Your task to perform on an android device: Open Maps and search for coffee Image 0: 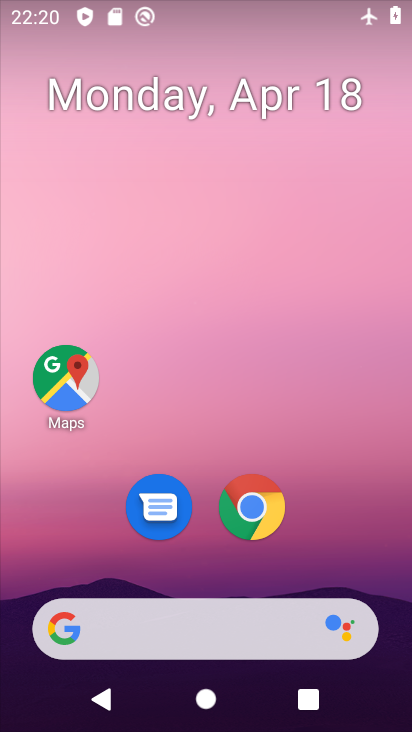
Step 0: click (57, 369)
Your task to perform on an android device: Open Maps and search for coffee Image 1: 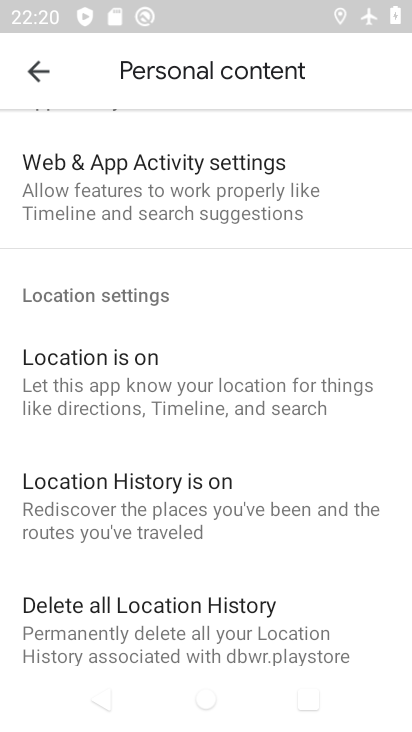
Step 1: click (42, 67)
Your task to perform on an android device: Open Maps and search for coffee Image 2: 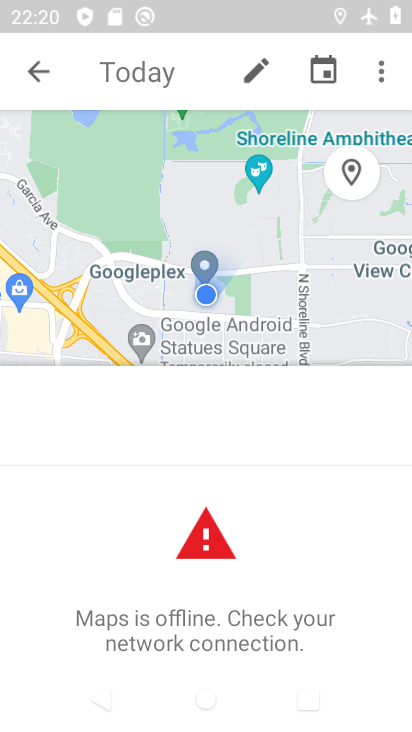
Step 2: click (42, 66)
Your task to perform on an android device: Open Maps and search for coffee Image 3: 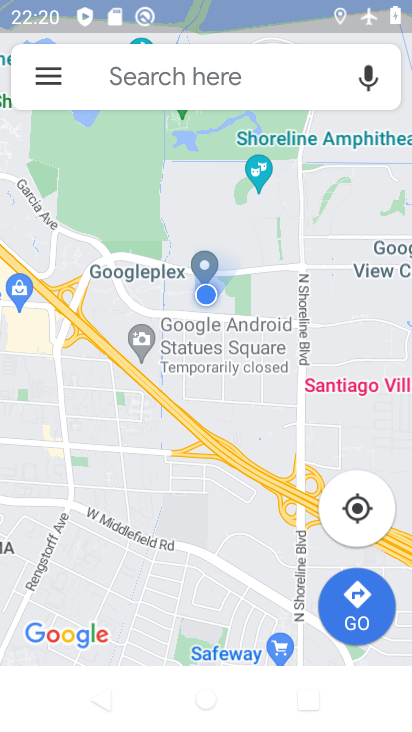
Step 3: click (143, 67)
Your task to perform on an android device: Open Maps and search for coffee Image 4: 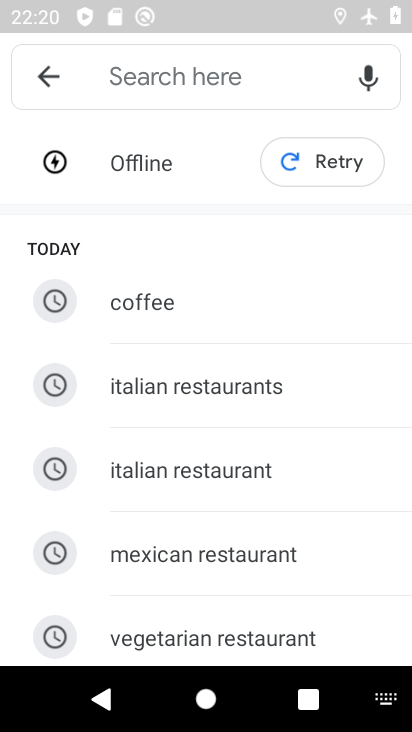
Step 4: click (187, 300)
Your task to perform on an android device: Open Maps and search for coffee Image 5: 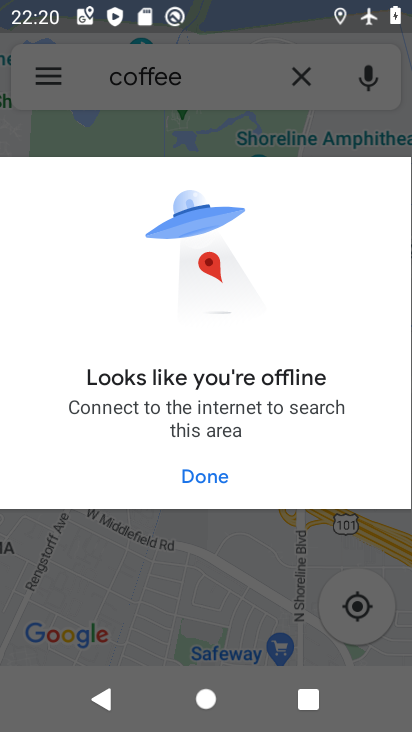
Step 5: task complete